Your task to perform on an android device: Open the Play Movies app and select the watchlist tab. Image 0: 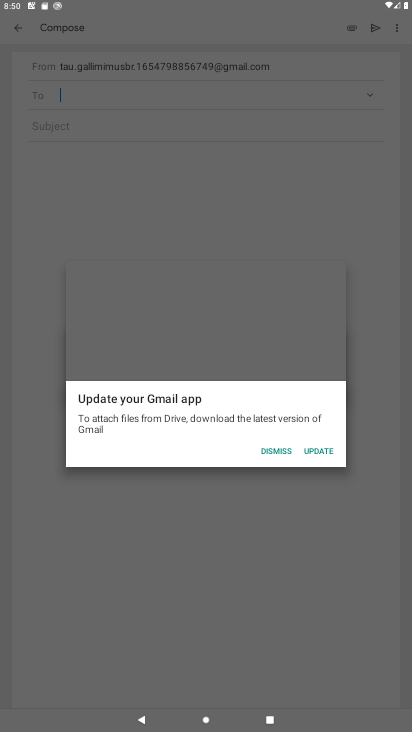
Step 0: press home button
Your task to perform on an android device: Open the Play Movies app and select the watchlist tab. Image 1: 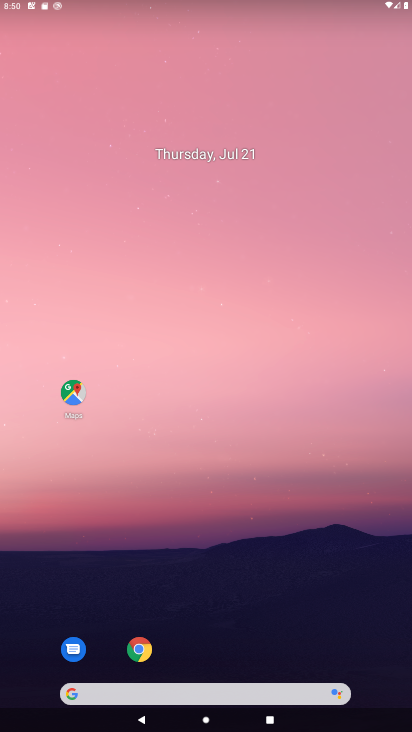
Step 1: drag from (340, 561) to (368, 42)
Your task to perform on an android device: Open the Play Movies app and select the watchlist tab. Image 2: 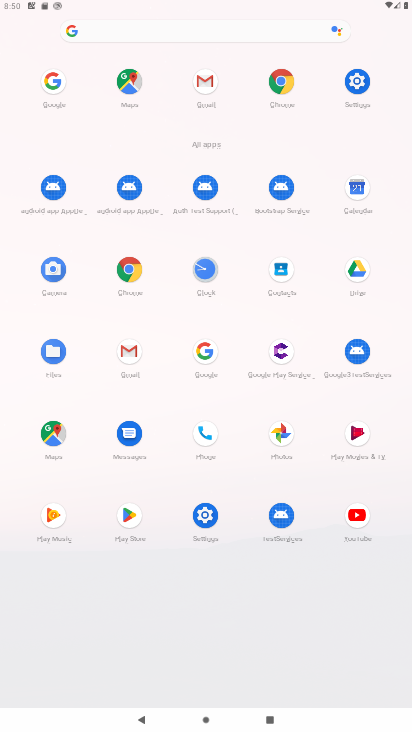
Step 2: click (353, 431)
Your task to perform on an android device: Open the Play Movies app and select the watchlist tab. Image 3: 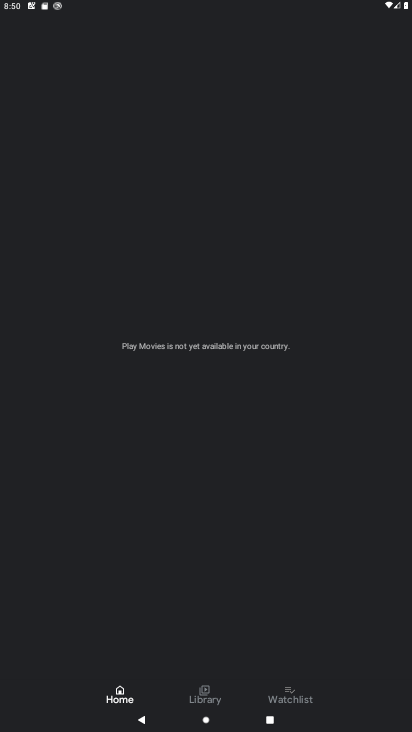
Step 3: click (291, 700)
Your task to perform on an android device: Open the Play Movies app and select the watchlist tab. Image 4: 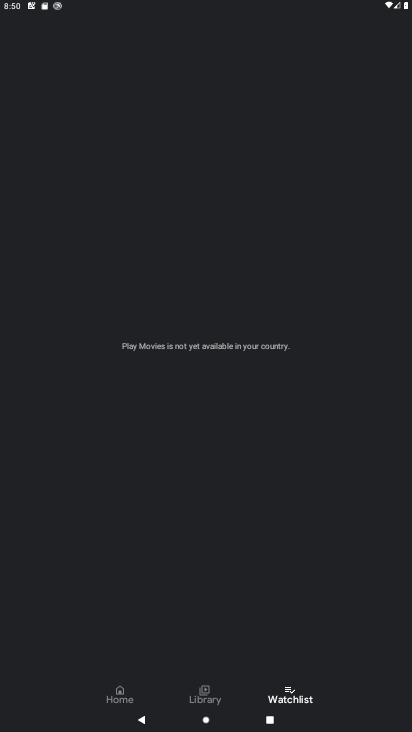
Step 4: task complete